Your task to perform on an android device: Open Maps and search for coffee Image 0: 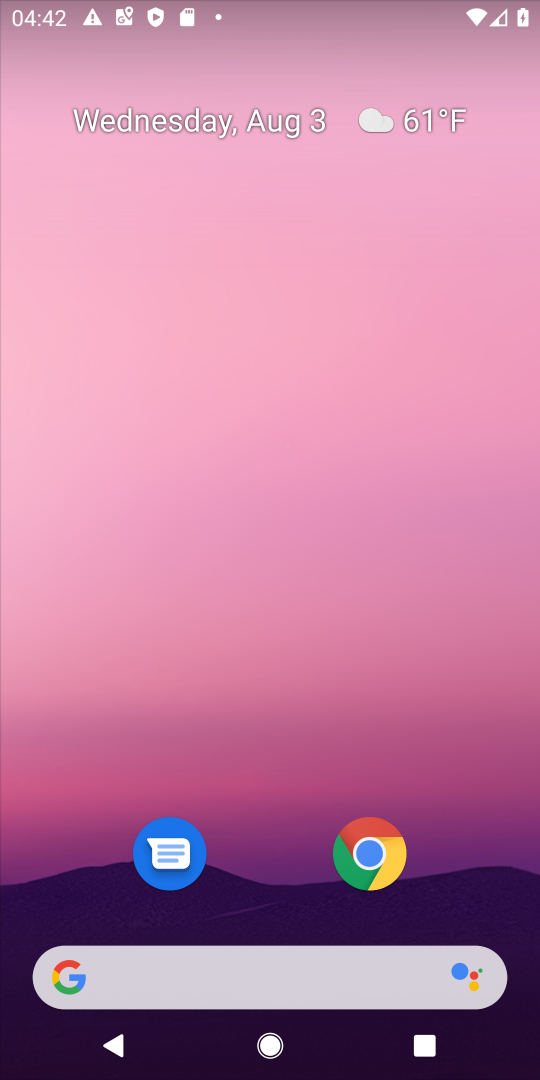
Step 0: drag from (278, 836) to (262, 86)
Your task to perform on an android device: Open Maps and search for coffee Image 1: 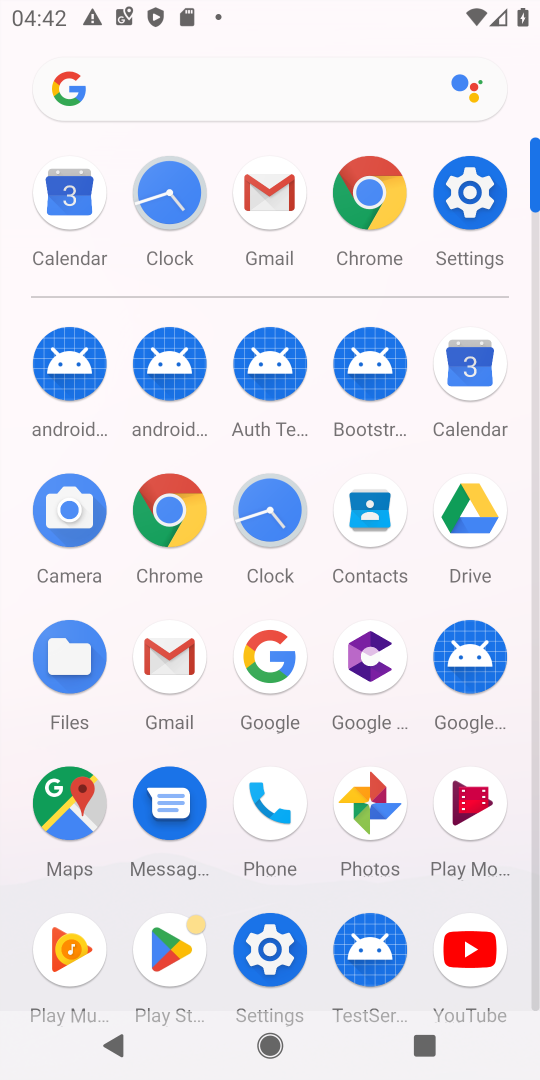
Step 1: click (62, 792)
Your task to perform on an android device: Open Maps and search for coffee Image 2: 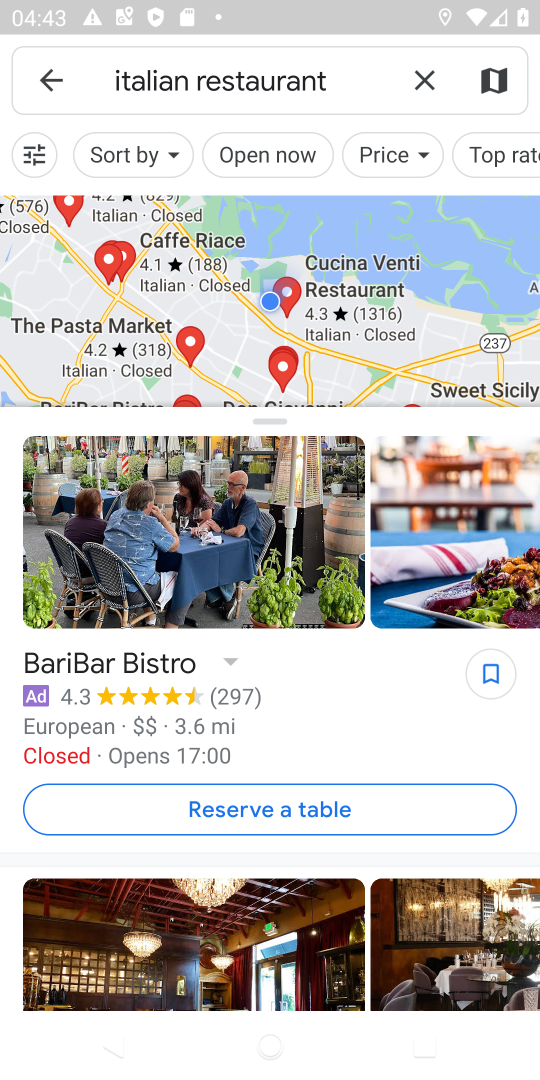
Step 2: click (422, 77)
Your task to perform on an android device: Open Maps and search for coffee Image 3: 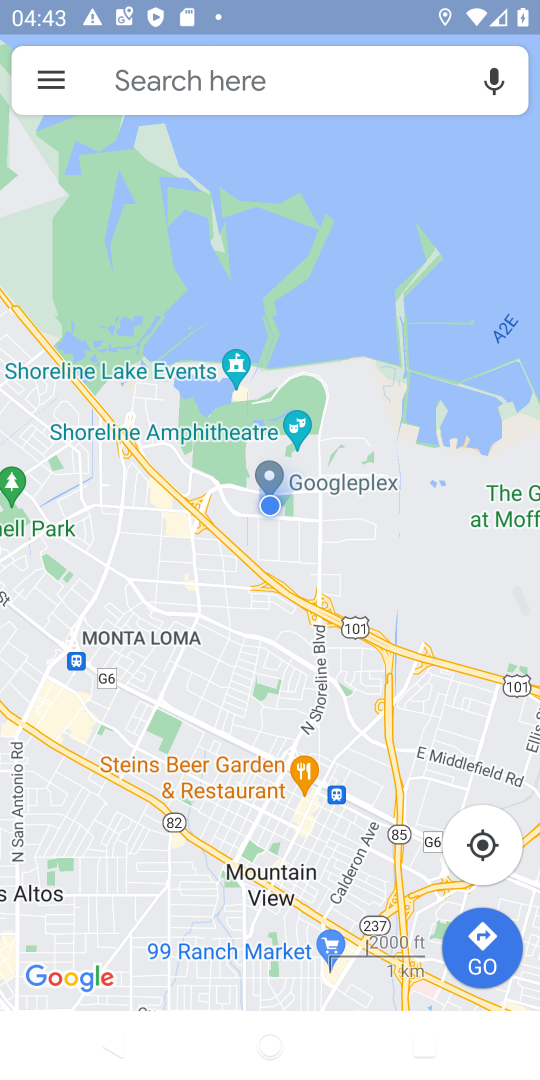
Step 3: click (318, 72)
Your task to perform on an android device: Open Maps and search for coffee Image 4: 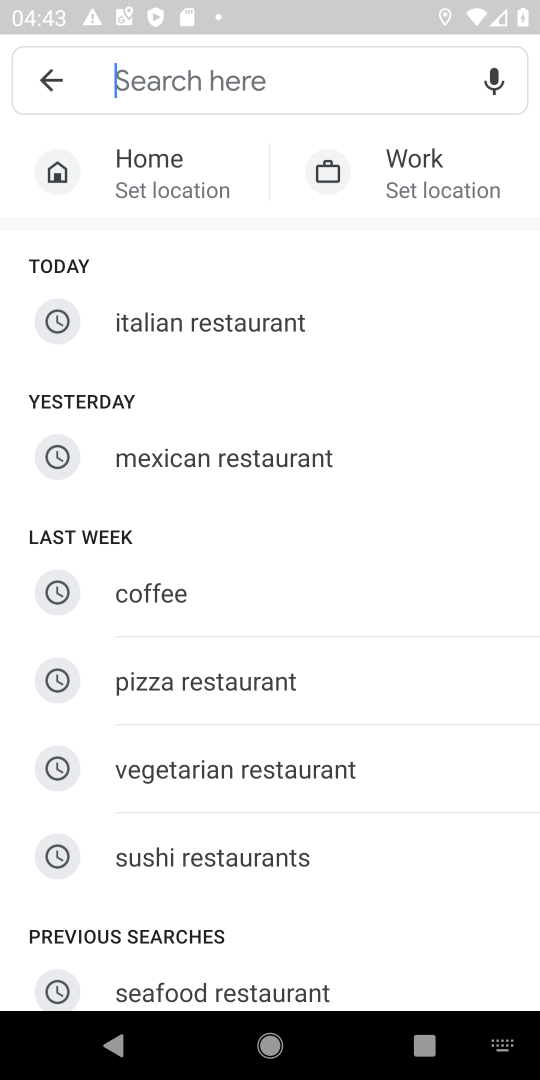
Step 4: type "Coffee"
Your task to perform on an android device: Open Maps and search for coffee Image 5: 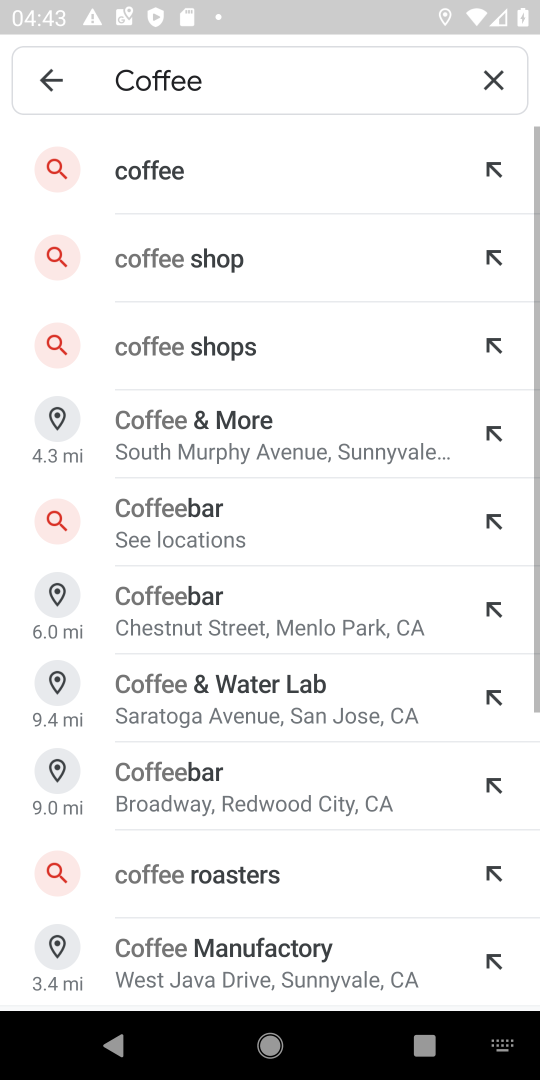
Step 5: click (159, 168)
Your task to perform on an android device: Open Maps and search for coffee Image 6: 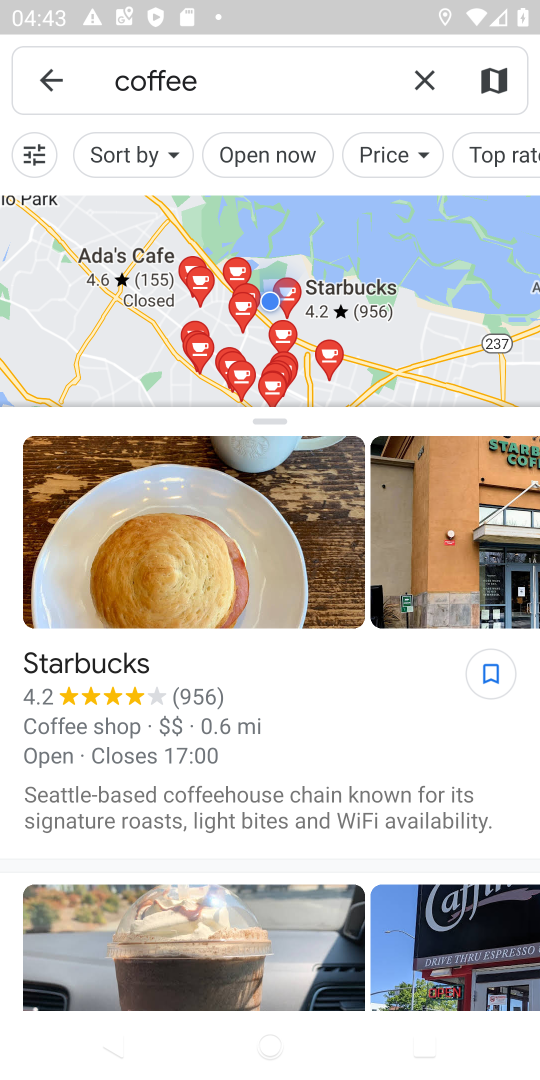
Step 6: task complete